Your task to perform on an android device: Go to Yahoo.com Image 0: 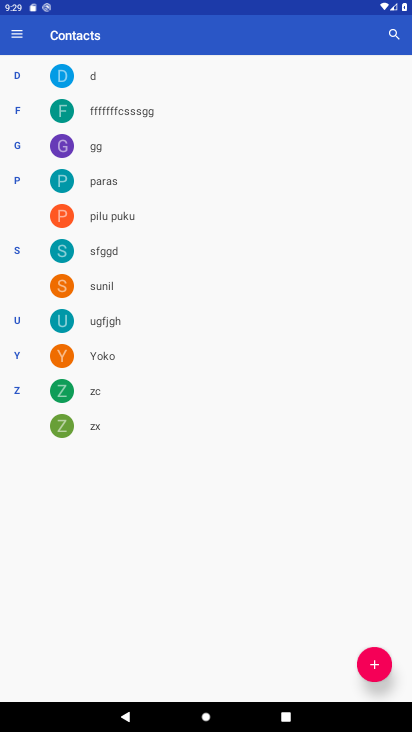
Step 0: press home button
Your task to perform on an android device: Go to Yahoo.com Image 1: 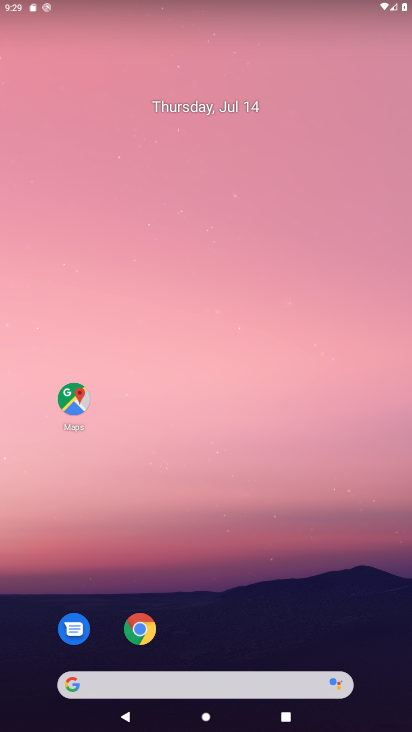
Step 1: drag from (263, 616) to (278, 119)
Your task to perform on an android device: Go to Yahoo.com Image 2: 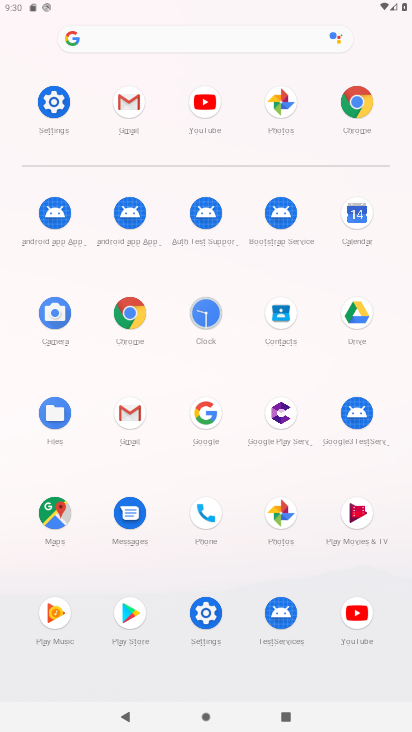
Step 2: click (132, 313)
Your task to perform on an android device: Go to Yahoo.com Image 3: 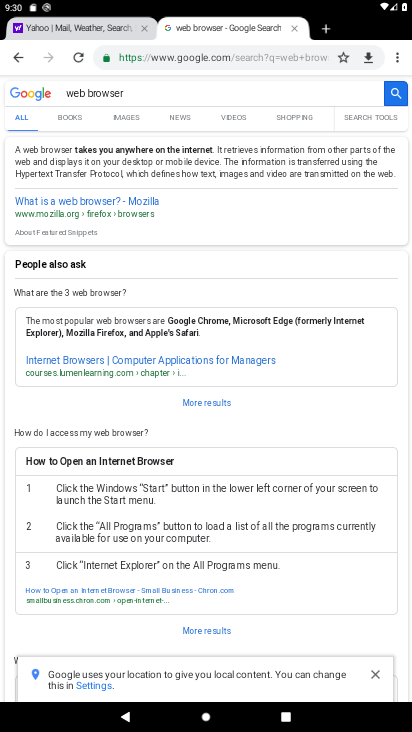
Step 3: click (277, 55)
Your task to perform on an android device: Go to Yahoo.com Image 4: 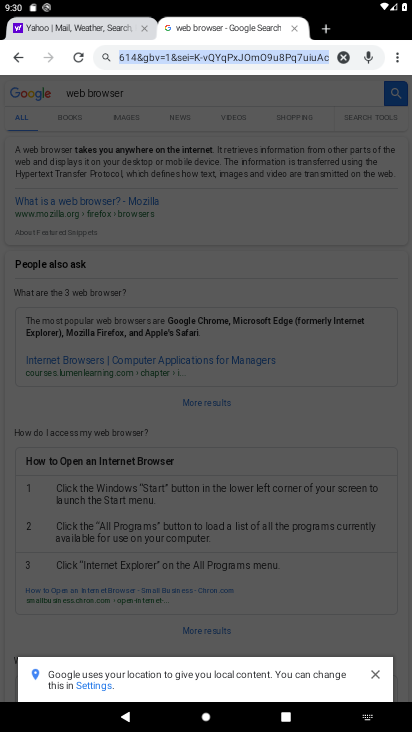
Step 4: click (339, 58)
Your task to perform on an android device: Go to Yahoo.com Image 5: 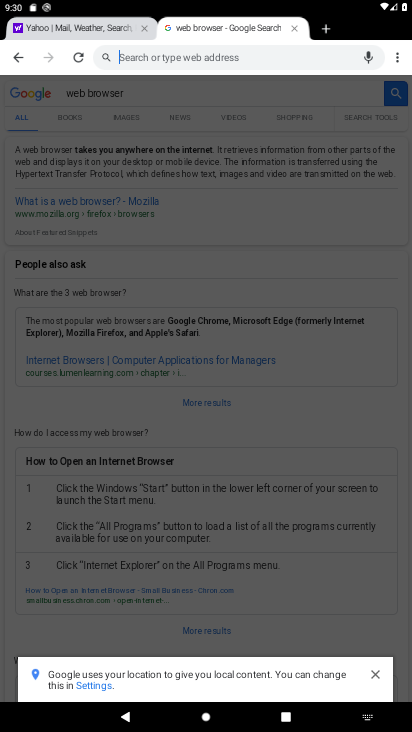
Step 5: type "Yahoo.com"
Your task to perform on an android device: Go to Yahoo.com Image 6: 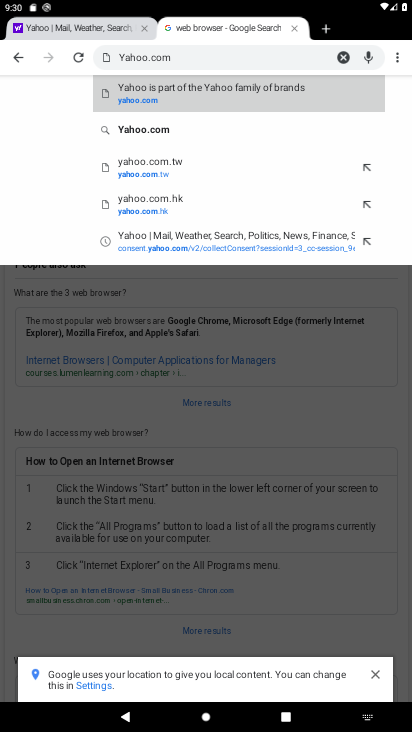
Step 6: click (137, 100)
Your task to perform on an android device: Go to Yahoo.com Image 7: 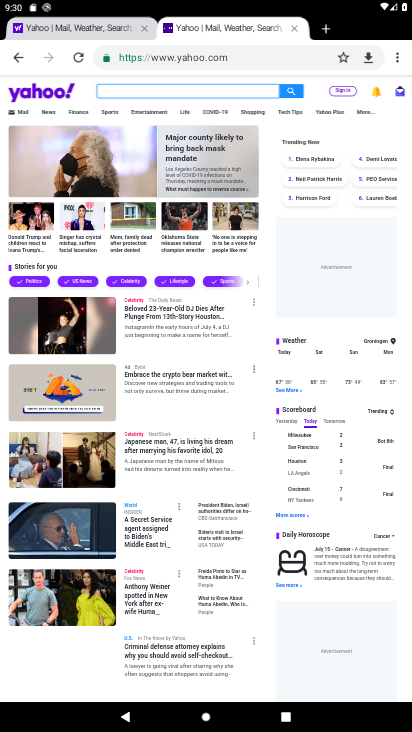
Step 7: task complete